Your task to perform on an android device: open the mobile data screen to see how much data has been used Image 0: 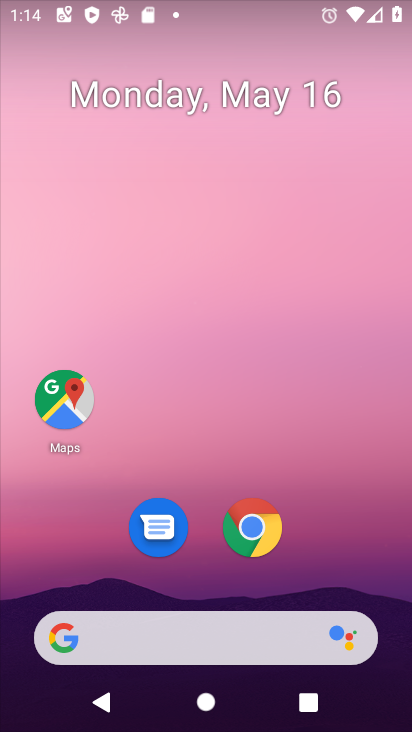
Step 0: drag from (369, 569) to (267, 39)
Your task to perform on an android device: open the mobile data screen to see how much data has been used Image 1: 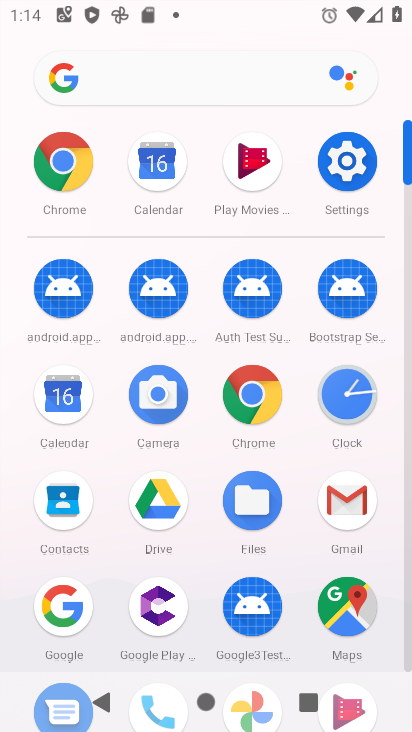
Step 1: click (351, 145)
Your task to perform on an android device: open the mobile data screen to see how much data has been used Image 2: 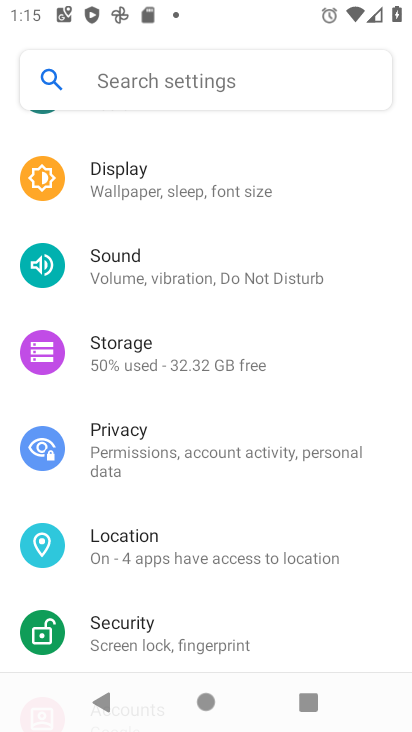
Step 2: drag from (271, 224) to (252, 682)
Your task to perform on an android device: open the mobile data screen to see how much data has been used Image 3: 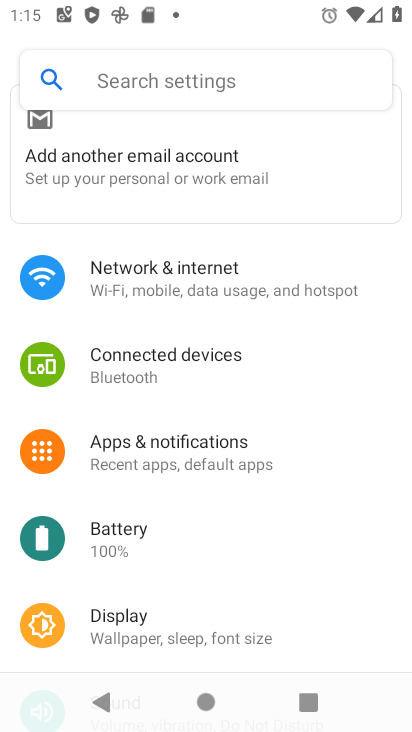
Step 3: click (232, 309)
Your task to perform on an android device: open the mobile data screen to see how much data has been used Image 4: 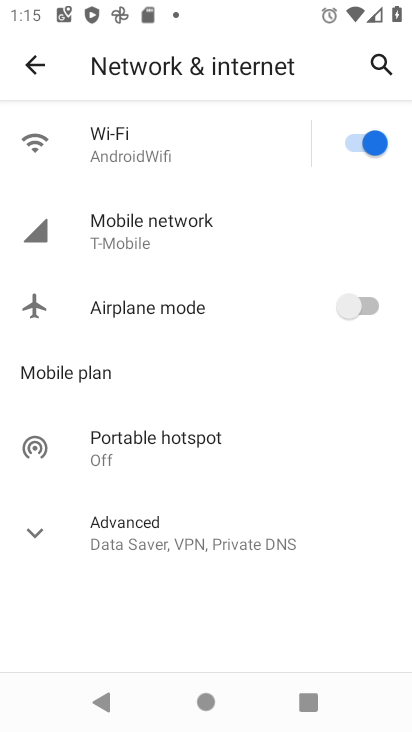
Step 4: click (232, 215)
Your task to perform on an android device: open the mobile data screen to see how much data has been used Image 5: 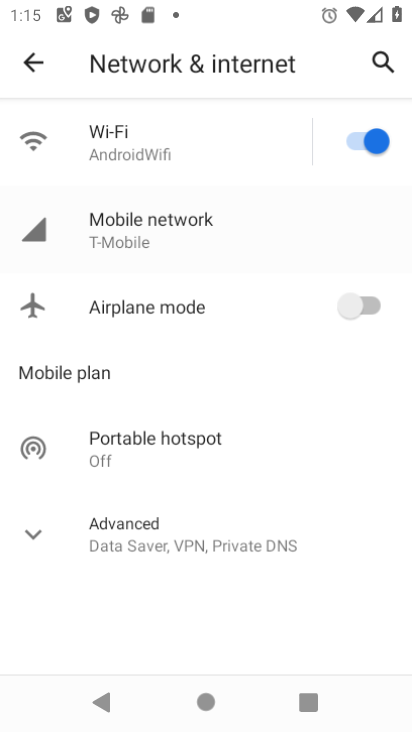
Step 5: task complete